Your task to perform on an android device: show emergency info Image 0: 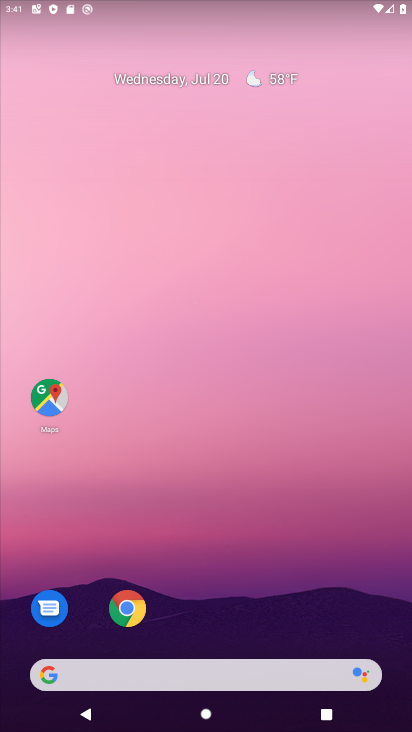
Step 0: drag from (251, 607) to (244, 159)
Your task to perform on an android device: show emergency info Image 1: 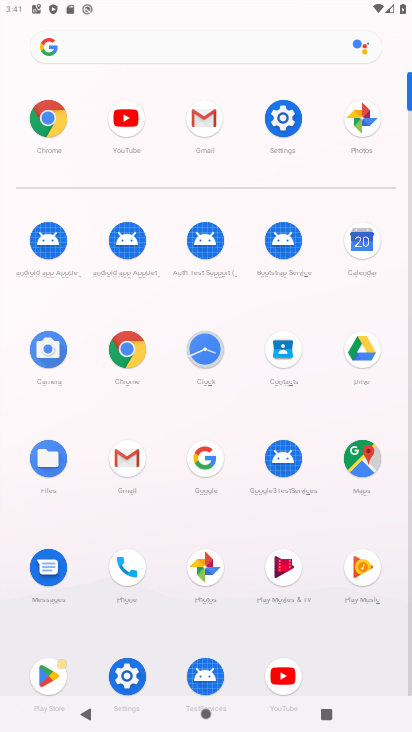
Step 1: click (118, 683)
Your task to perform on an android device: show emergency info Image 2: 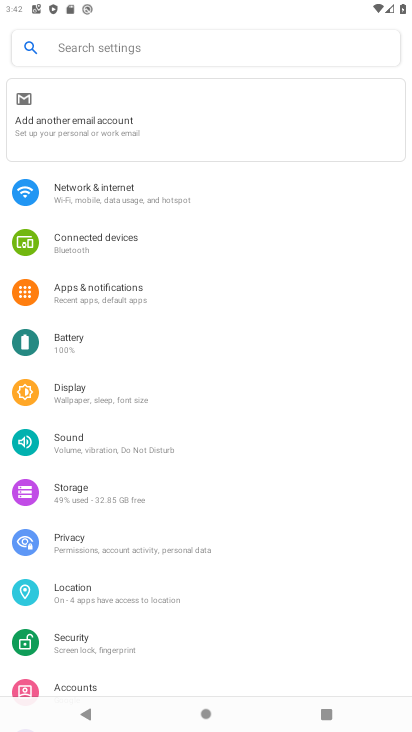
Step 2: drag from (172, 663) to (204, 60)
Your task to perform on an android device: show emergency info Image 3: 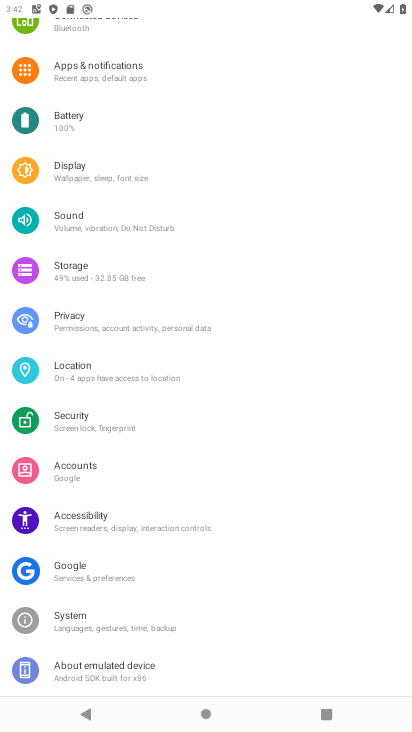
Step 3: click (132, 668)
Your task to perform on an android device: show emergency info Image 4: 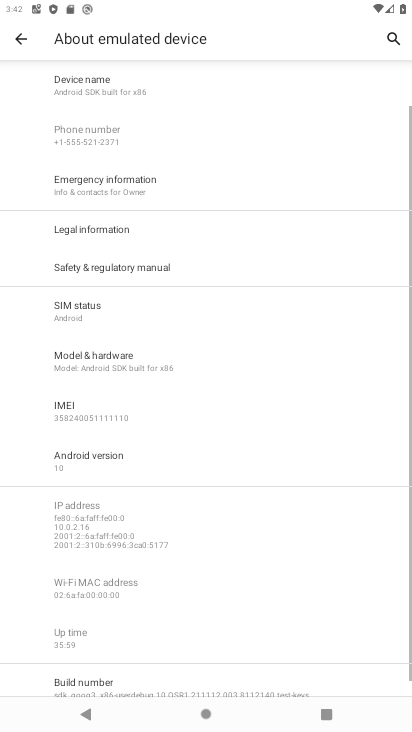
Step 4: task complete